Your task to perform on an android device: Open Google Maps Image 0: 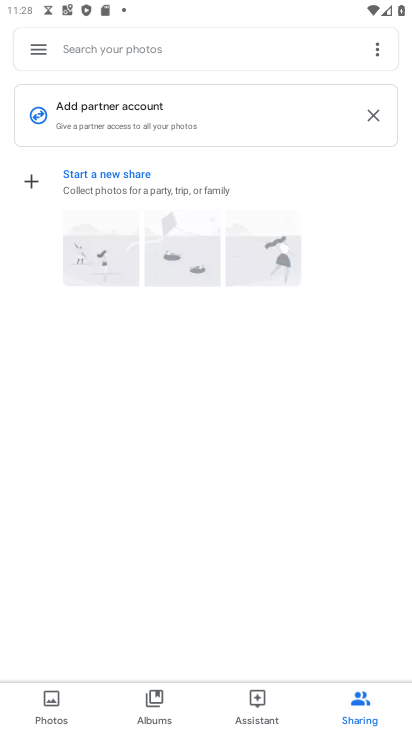
Step 0: press home button
Your task to perform on an android device: Open Google Maps Image 1: 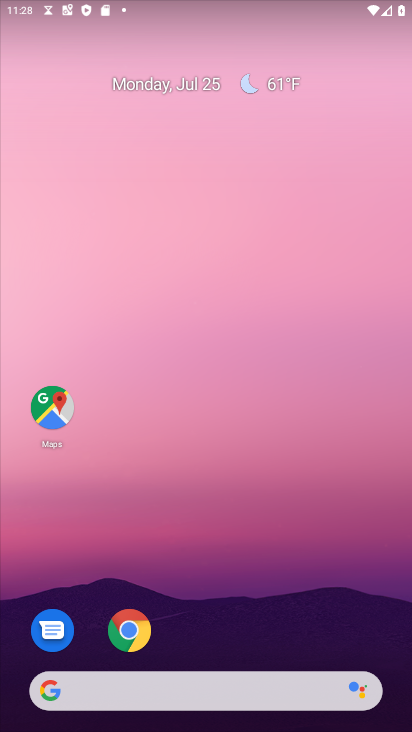
Step 1: click (44, 407)
Your task to perform on an android device: Open Google Maps Image 2: 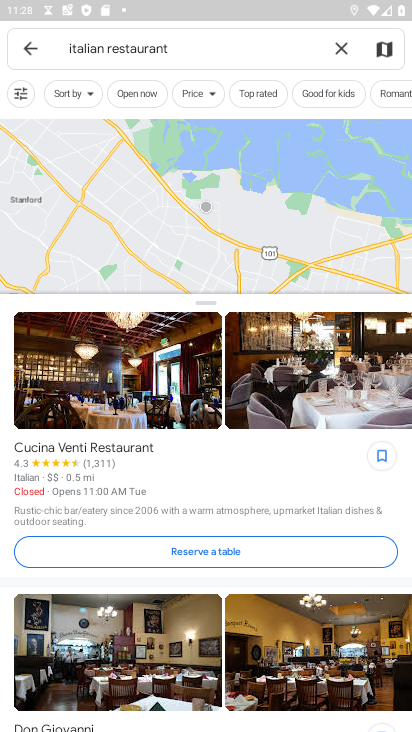
Step 2: task complete